Your task to perform on an android device: Open notification settings Image 0: 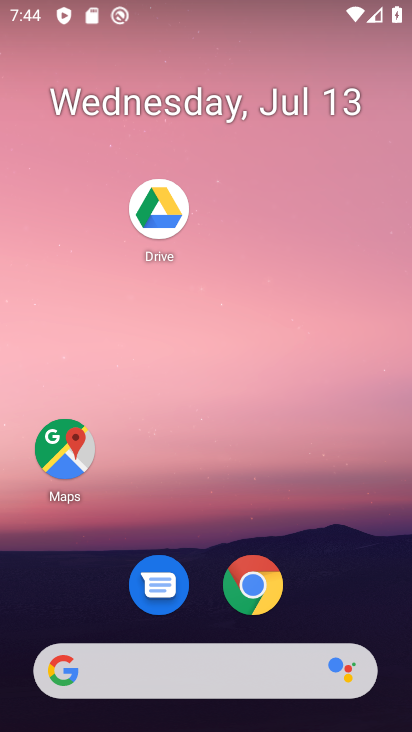
Step 0: drag from (185, 663) to (310, 71)
Your task to perform on an android device: Open notification settings Image 1: 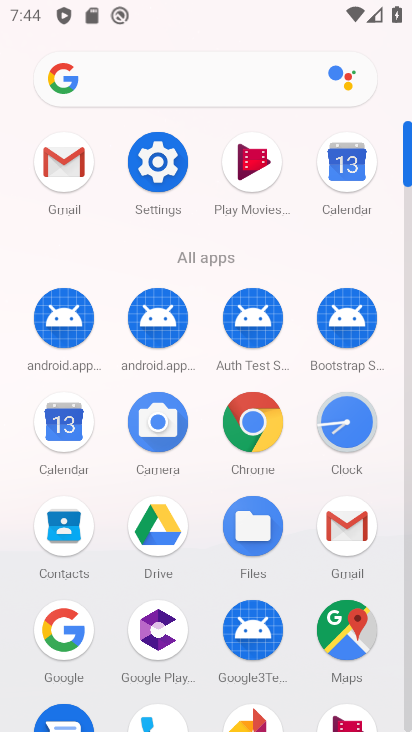
Step 1: click (164, 168)
Your task to perform on an android device: Open notification settings Image 2: 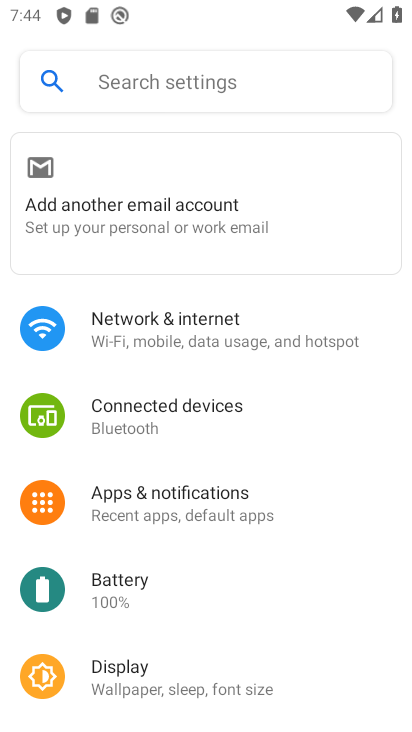
Step 2: click (194, 496)
Your task to perform on an android device: Open notification settings Image 3: 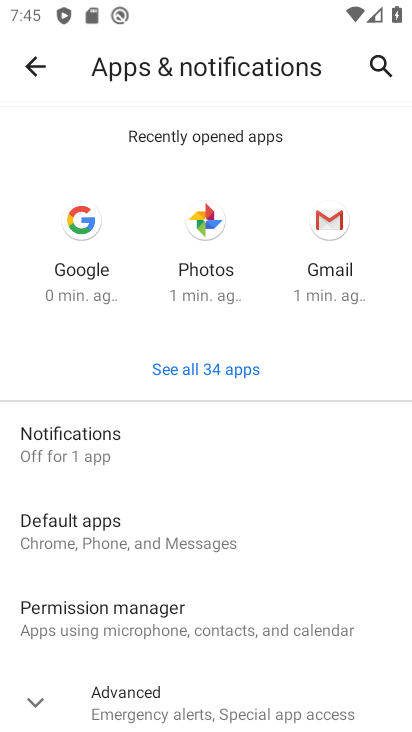
Step 3: click (80, 449)
Your task to perform on an android device: Open notification settings Image 4: 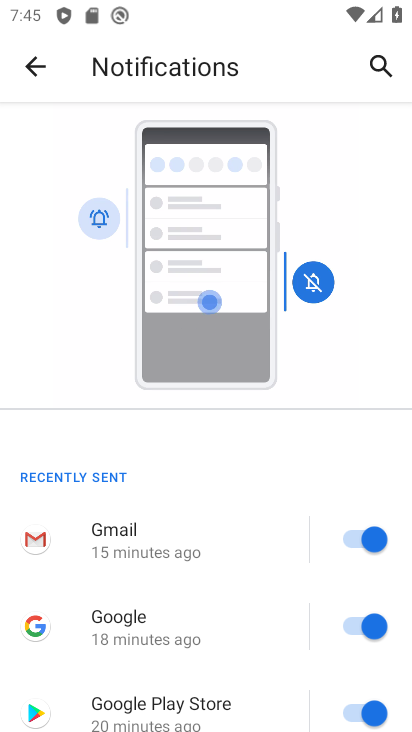
Step 4: task complete